Your task to perform on an android device: star an email in the gmail app Image 0: 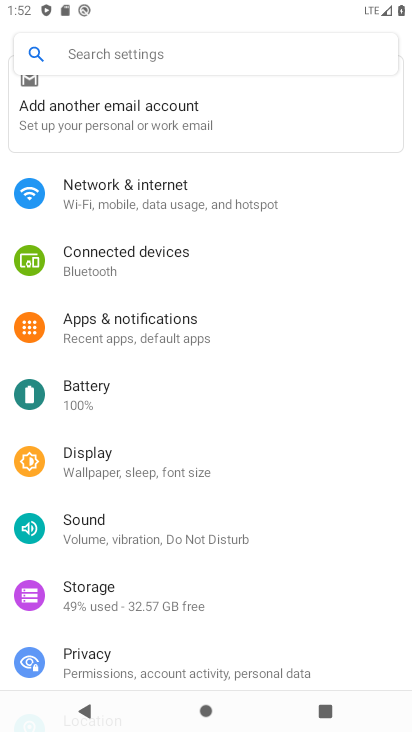
Step 0: press home button
Your task to perform on an android device: star an email in the gmail app Image 1: 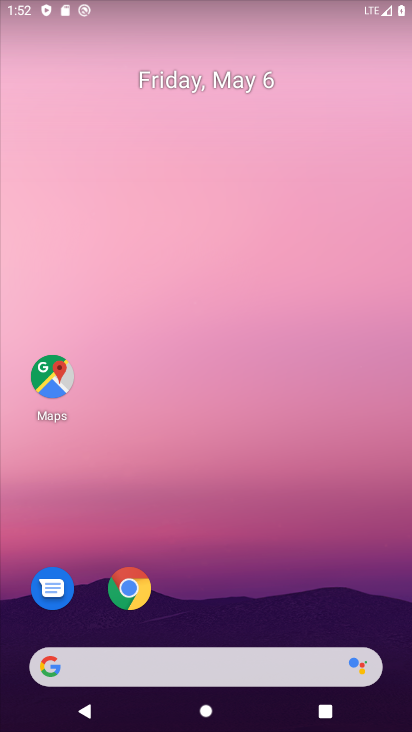
Step 1: drag from (365, 587) to (336, 187)
Your task to perform on an android device: star an email in the gmail app Image 2: 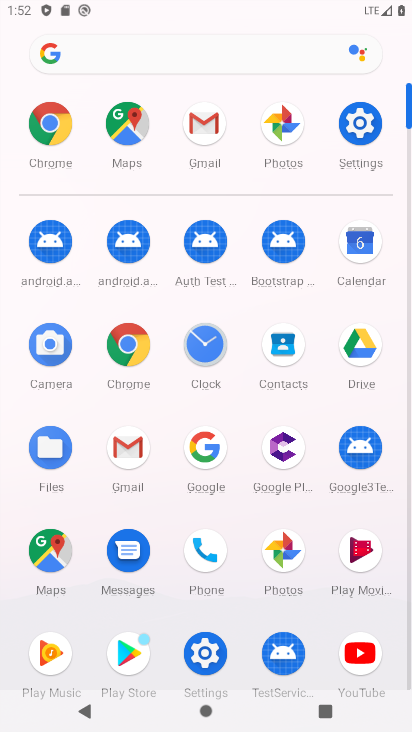
Step 2: click (201, 136)
Your task to perform on an android device: star an email in the gmail app Image 3: 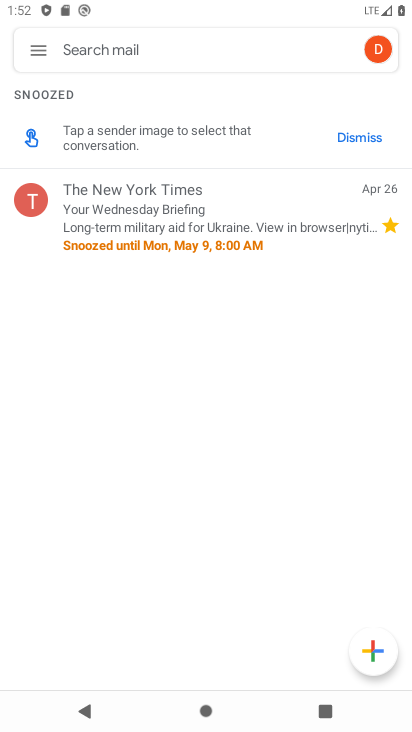
Step 3: click (35, 54)
Your task to perform on an android device: star an email in the gmail app Image 4: 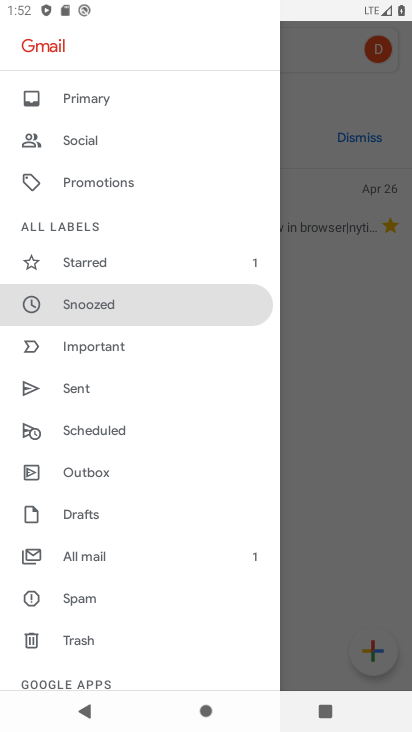
Step 4: click (127, 266)
Your task to perform on an android device: star an email in the gmail app Image 5: 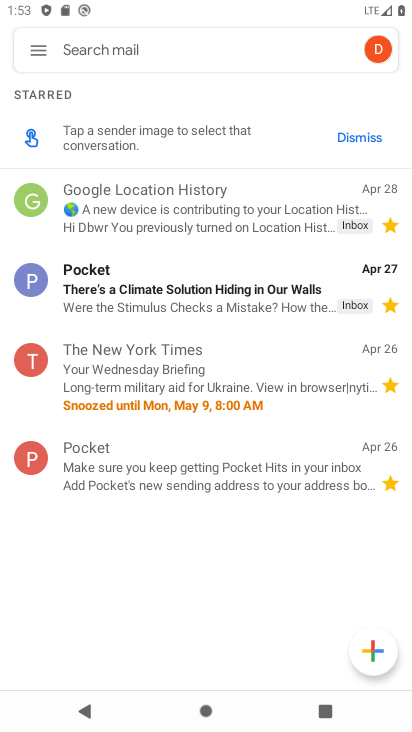
Step 5: task complete